Your task to perform on an android device: Is it going to rain this weekend? Image 0: 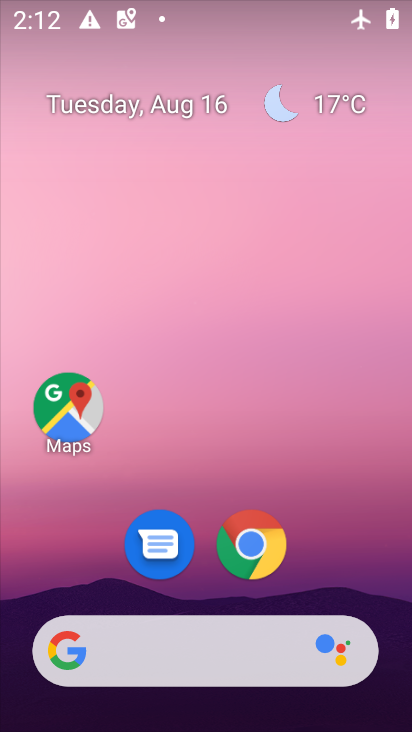
Step 0: drag from (140, 648) to (198, 78)
Your task to perform on an android device: Is it going to rain this weekend? Image 1: 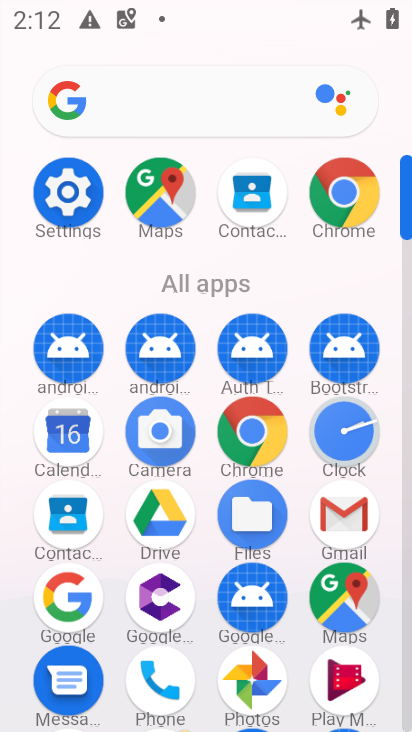
Step 1: click (64, 596)
Your task to perform on an android device: Is it going to rain this weekend? Image 2: 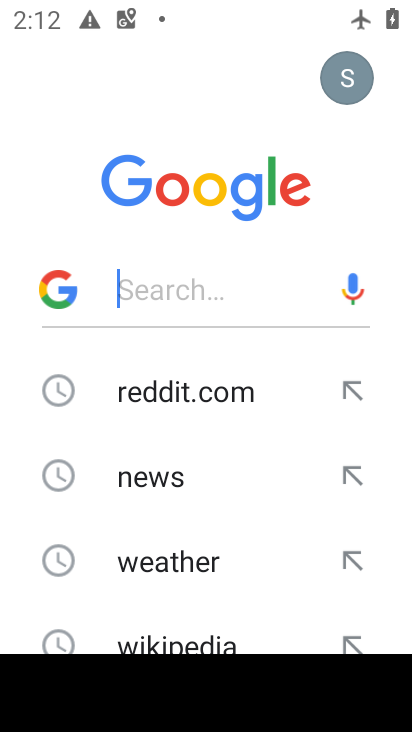
Step 2: click (255, 295)
Your task to perform on an android device: Is it going to rain this weekend? Image 3: 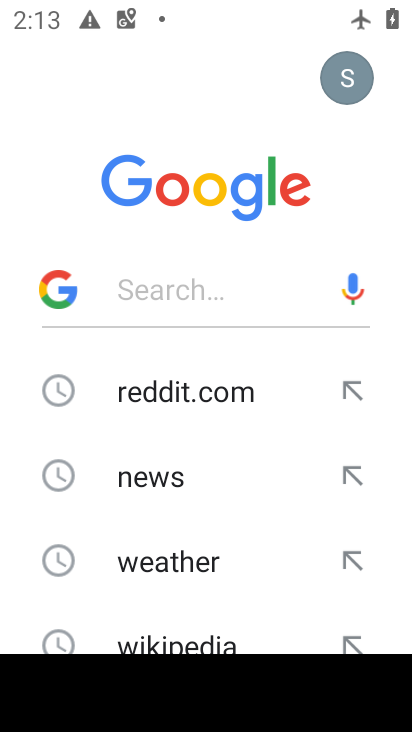
Step 3: type "Is it going to rain this weekend?"
Your task to perform on an android device: Is it going to rain this weekend? Image 4: 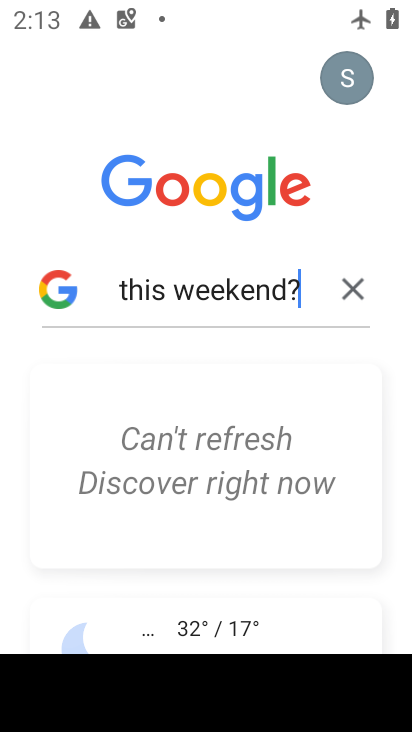
Step 4: drag from (144, 608) to (287, 342)
Your task to perform on an android device: Is it going to rain this weekend? Image 5: 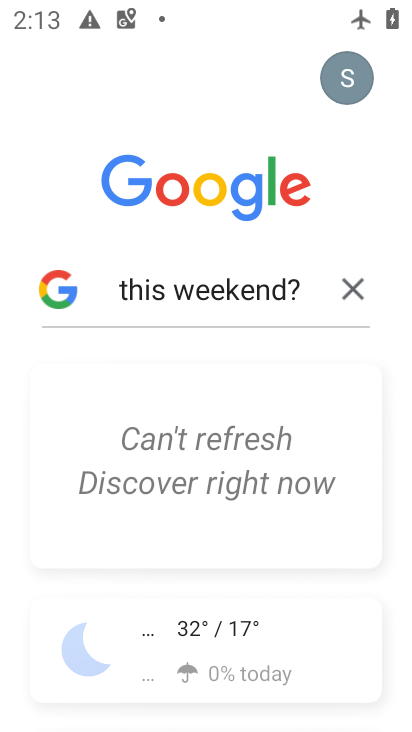
Step 5: click (208, 633)
Your task to perform on an android device: Is it going to rain this weekend? Image 6: 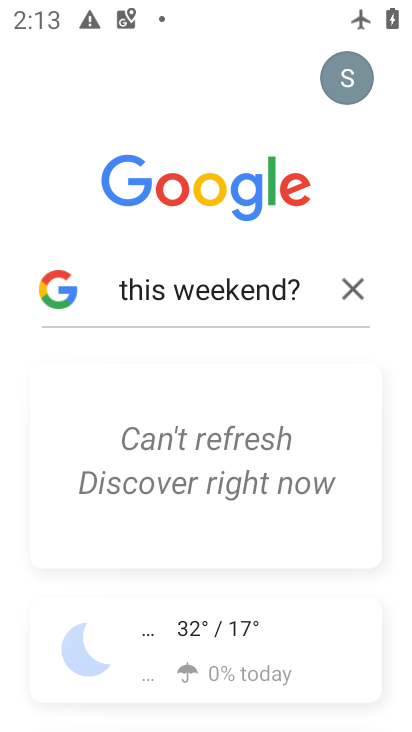
Step 6: click (208, 633)
Your task to perform on an android device: Is it going to rain this weekend? Image 7: 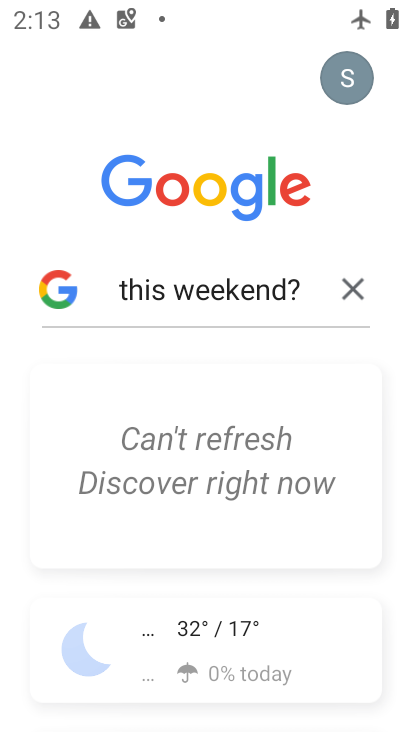
Step 7: task complete